Your task to perform on an android device: open app "LiveIn - Share Your Moment" Image 0: 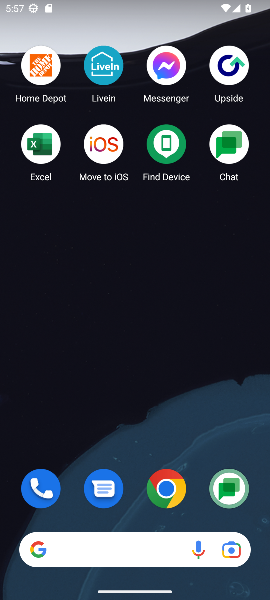
Step 0: drag from (145, 520) to (157, 28)
Your task to perform on an android device: open app "LiveIn - Share Your Moment" Image 1: 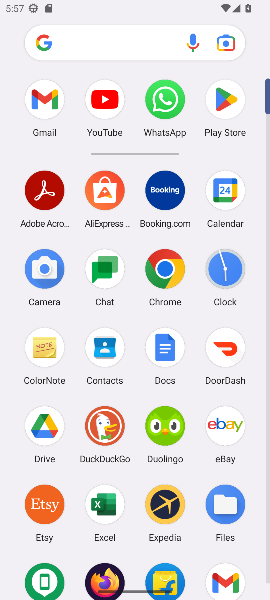
Step 1: click (212, 87)
Your task to perform on an android device: open app "LiveIn - Share Your Moment" Image 2: 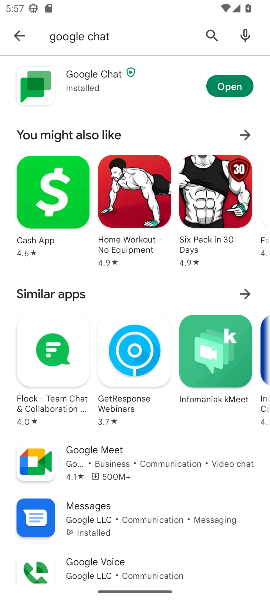
Step 2: click (212, 40)
Your task to perform on an android device: open app "LiveIn - Share Your Moment" Image 3: 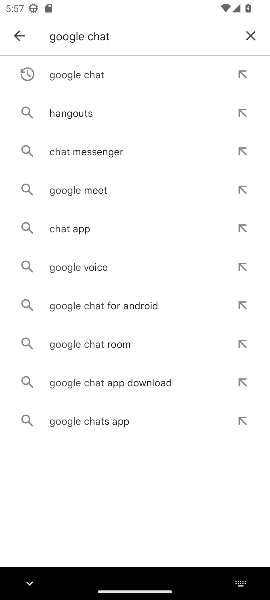
Step 3: click (244, 37)
Your task to perform on an android device: open app "LiveIn - Share Your Moment" Image 4: 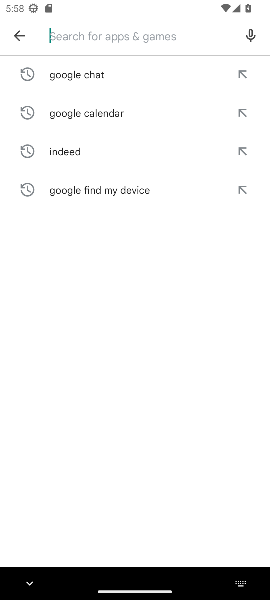
Step 4: type "llivein"
Your task to perform on an android device: open app "LiveIn - Share Your Moment" Image 5: 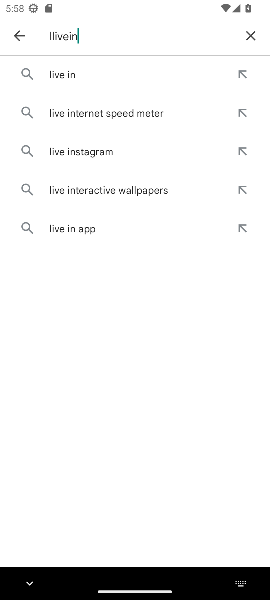
Step 5: click (144, 75)
Your task to perform on an android device: open app "LiveIn - Share Your Moment" Image 6: 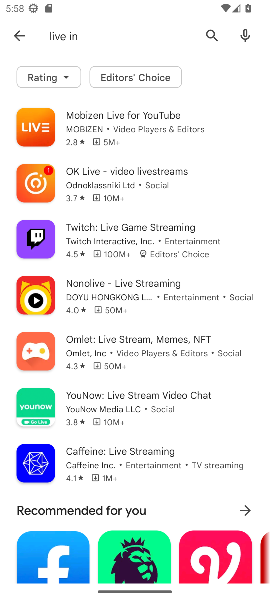
Step 6: click (98, 146)
Your task to perform on an android device: open app "LiveIn - Share Your Moment" Image 7: 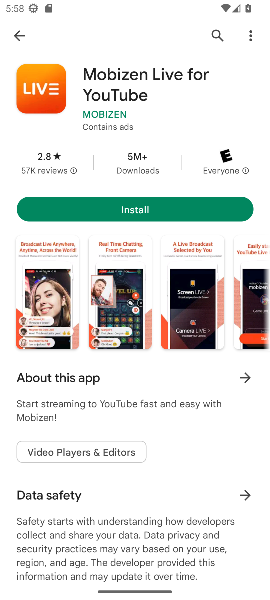
Step 7: click (185, 218)
Your task to perform on an android device: open app "LiveIn - Share Your Moment" Image 8: 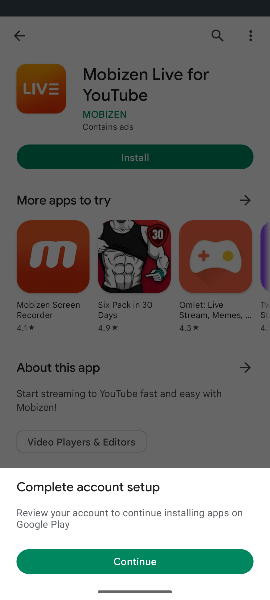
Step 8: click (140, 563)
Your task to perform on an android device: open app "LiveIn - Share Your Moment" Image 9: 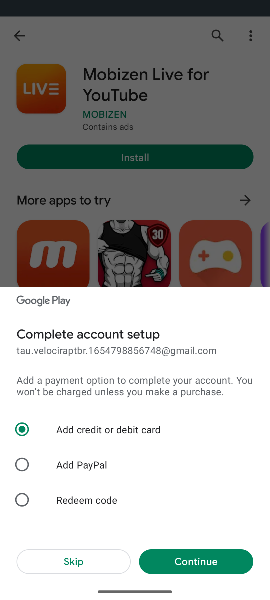
Step 9: click (96, 566)
Your task to perform on an android device: open app "LiveIn - Share Your Moment" Image 10: 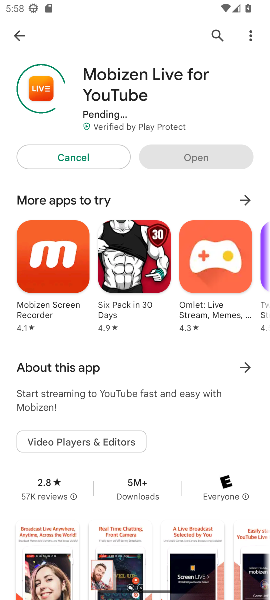
Step 10: task complete